Your task to perform on an android device: Go to Reddit.com Image 0: 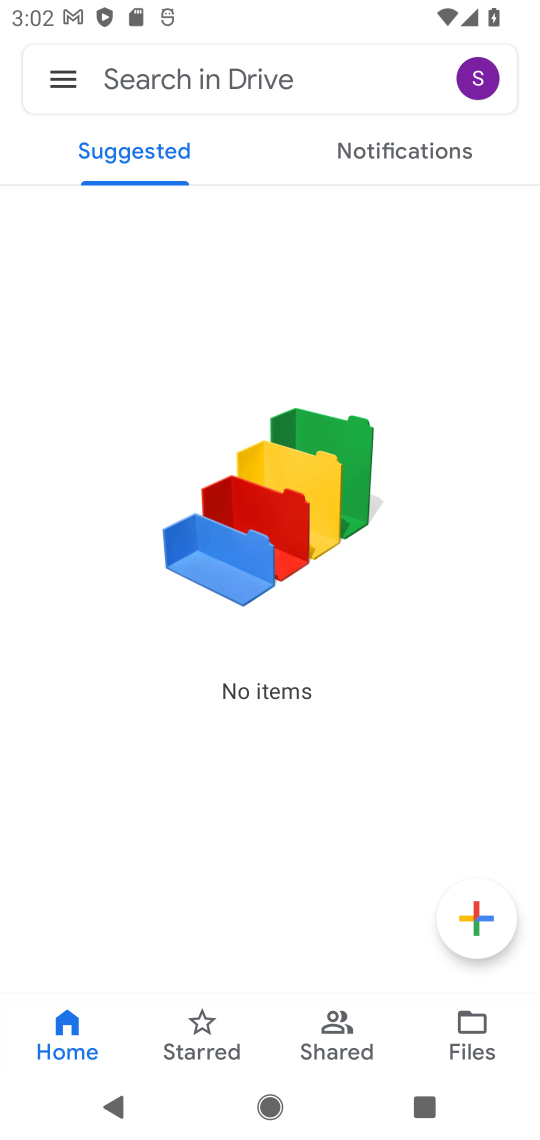
Step 0: press home button
Your task to perform on an android device: Go to Reddit.com Image 1: 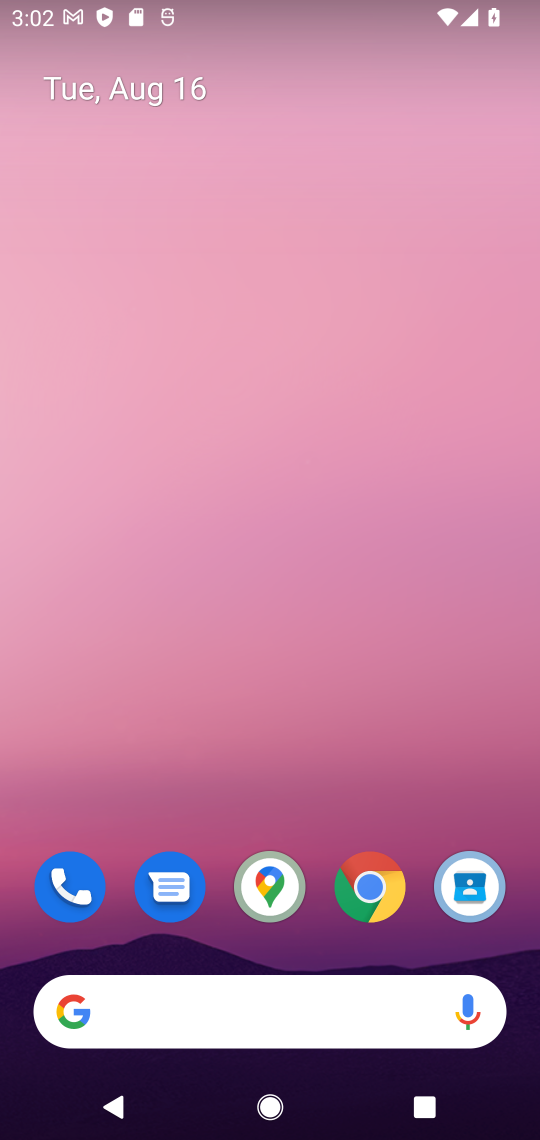
Step 1: drag from (323, 802) to (353, 132)
Your task to perform on an android device: Go to Reddit.com Image 2: 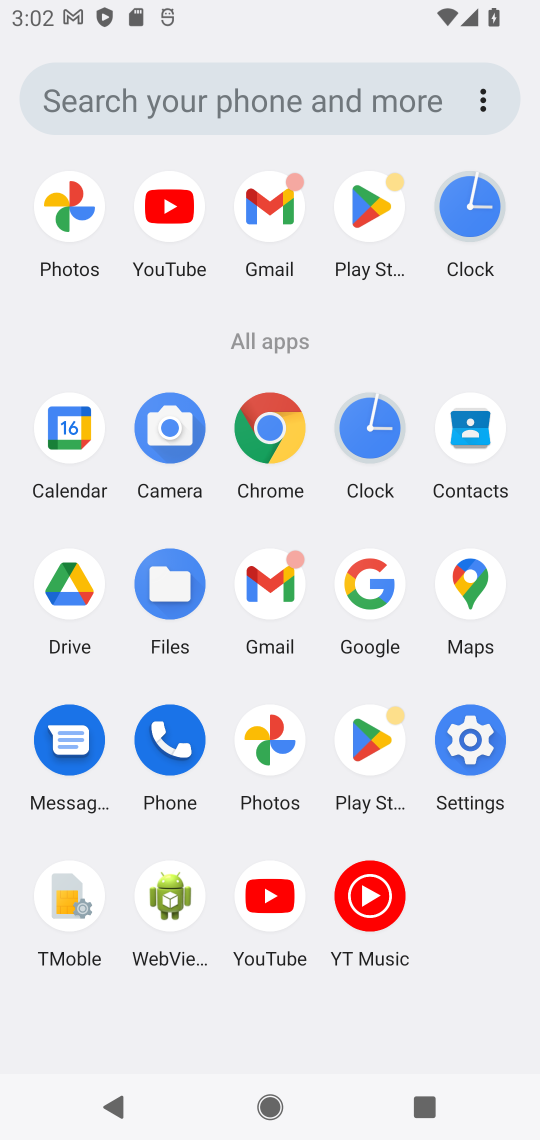
Step 2: click (260, 432)
Your task to perform on an android device: Go to Reddit.com Image 3: 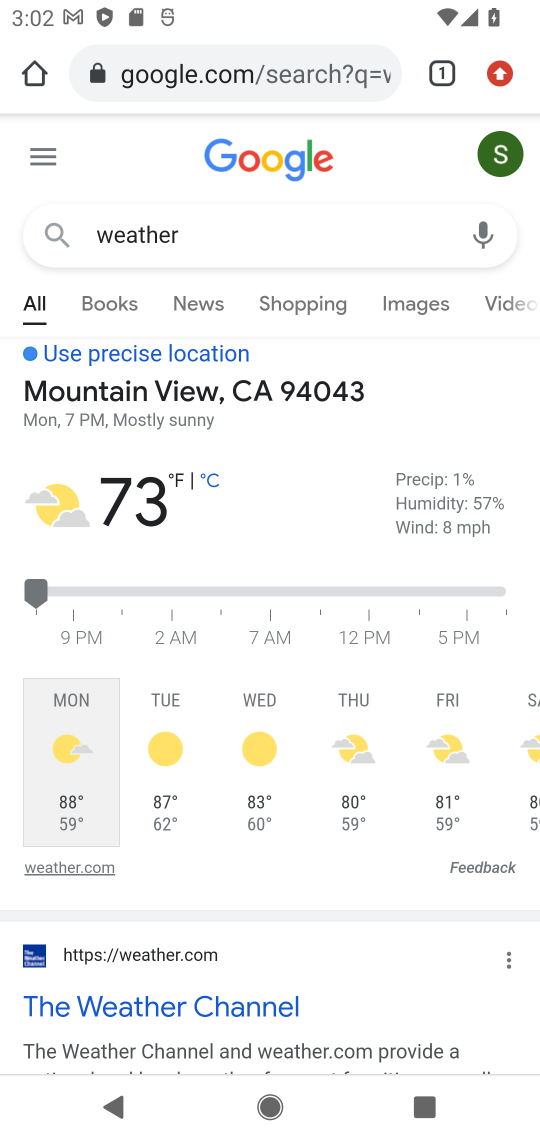
Step 3: click (326, 65)
Your task to perform on an android device: Go to Reddit.com Image 4: 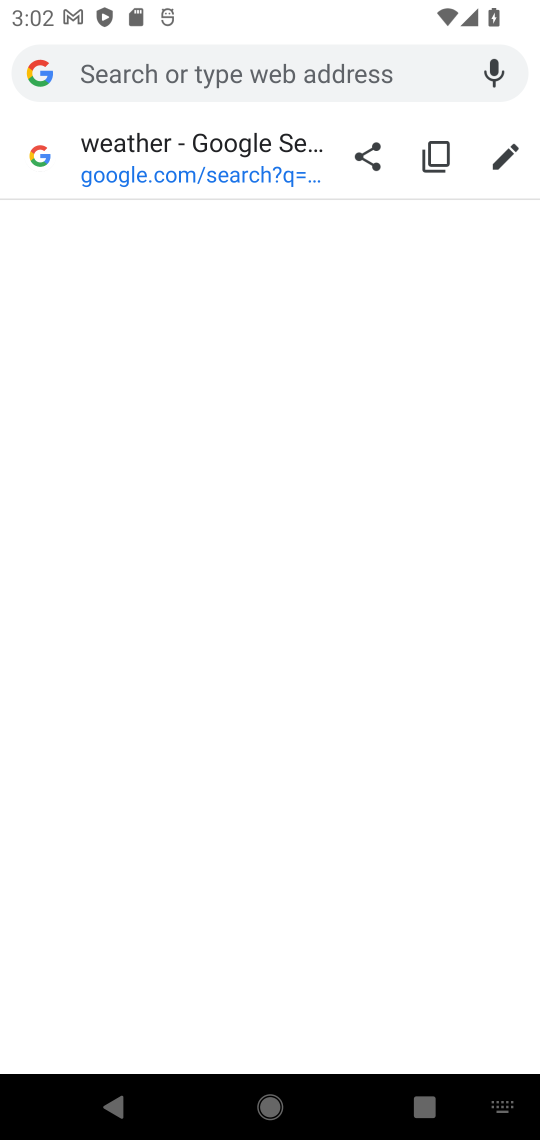
Step 4: type "reddit.com"
Your task to perform on an android device: Go to Reddit.com Image 5: 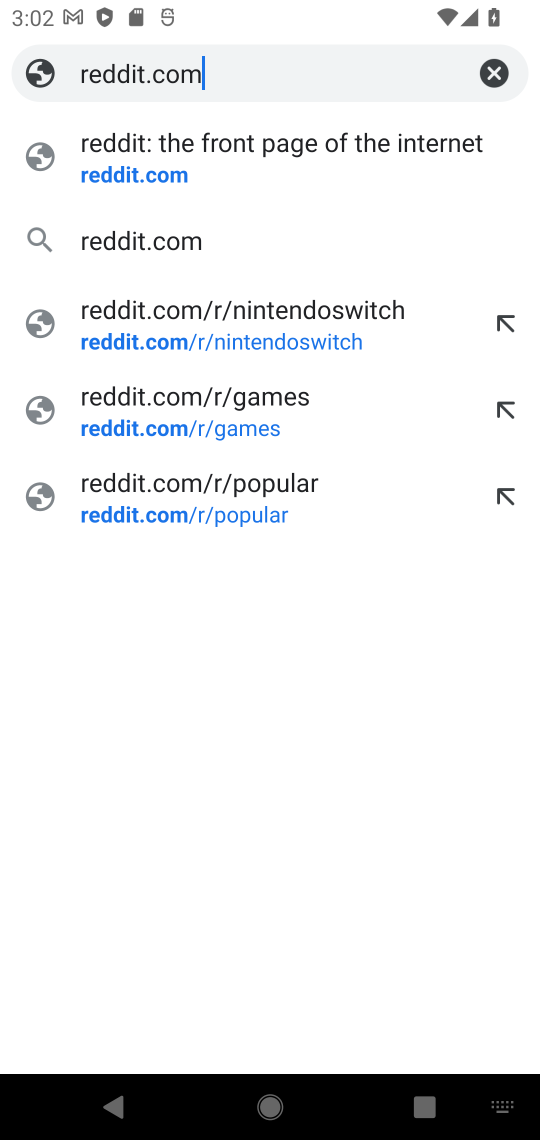
Step 5: click (167, 161)
Your task to perform on an android device: Go to Reddit.com Image 6: 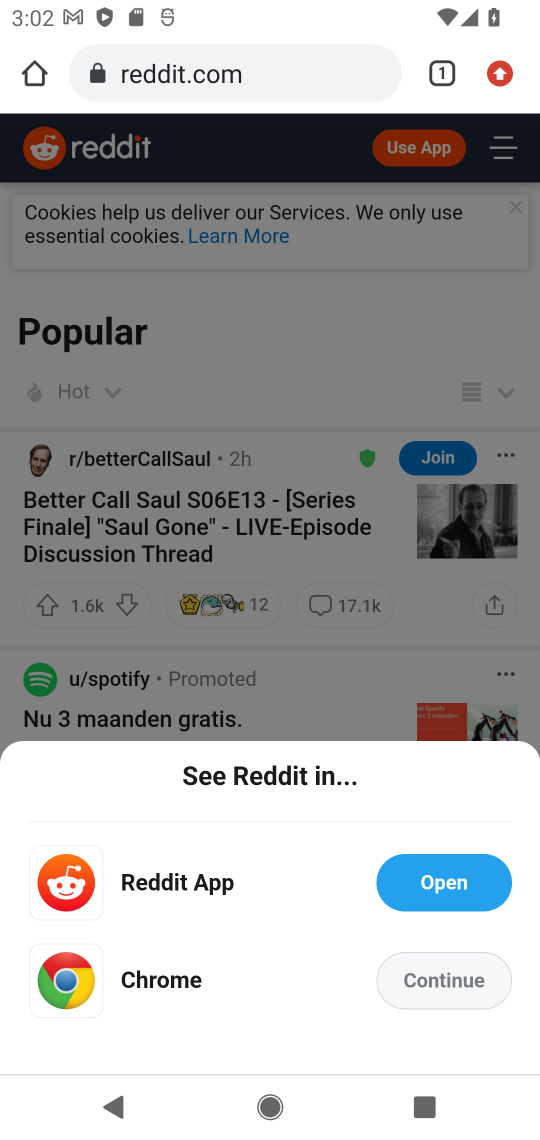
Step 6: task complete